Your task to perform on an android device: check data usage Image 0: 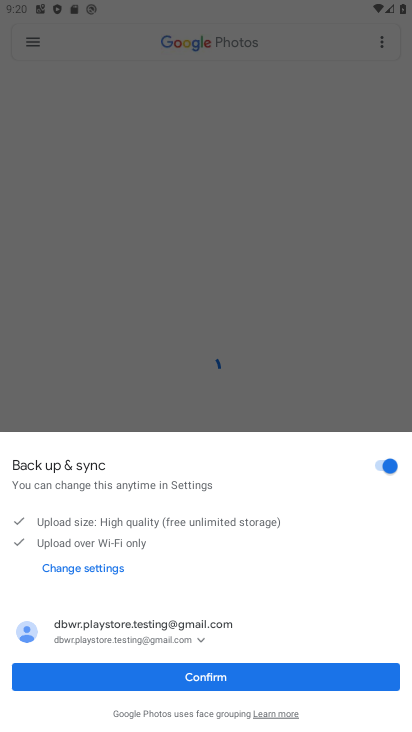
Step 0: click (214, 678)
Your task to perform on an android device: check data usage Image 1: 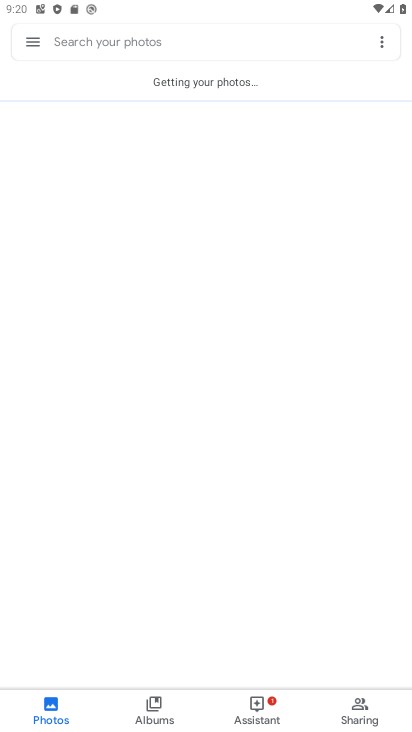
Step 1: press home button
Your task to perform on an android device: check data usage Image 2: 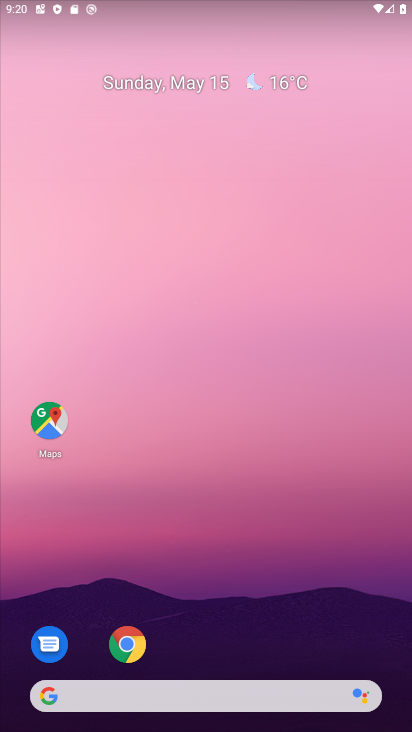
Step 2: drag from (212, 682) to (212, 214)
Your task to perform on an android device: check data usage Image 3: 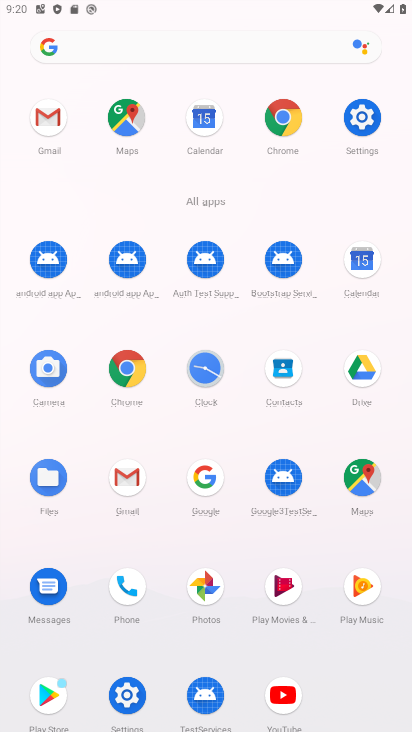
Step 3: click (362, 118)
Your task to perform on an android device: check data usage Image 4: 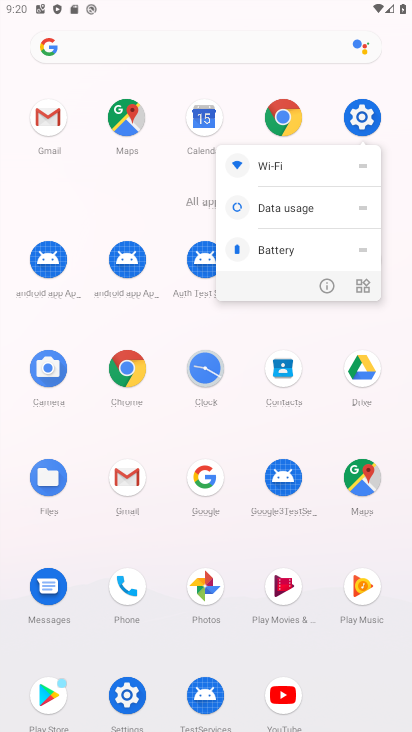
Step 4: click (371, 120)
Your task to perform on an android device: check data usage Image 5: 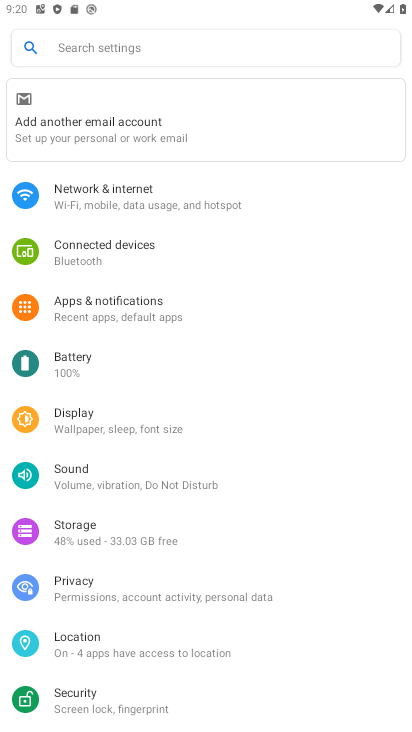
Step 5: click (175, 203)
Your task to perform on an android device: check data usage Image 6: 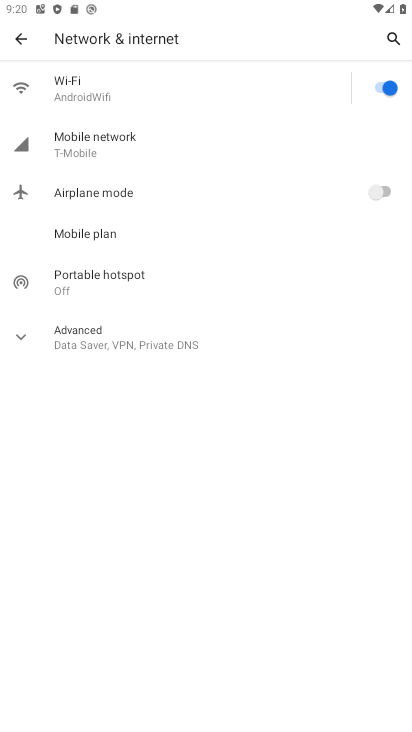
Step 6: click (110, 340)
Your task to perform on an android device: check data usage Image 7: 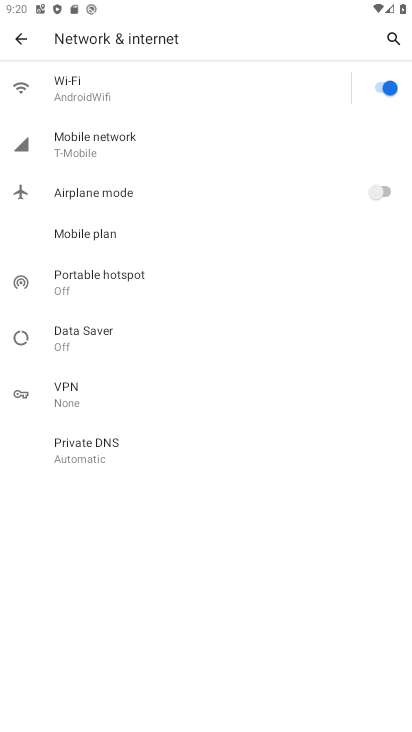
Step 7: click (128, 133)
Your task to perform on an android device: check data usage Image 8: 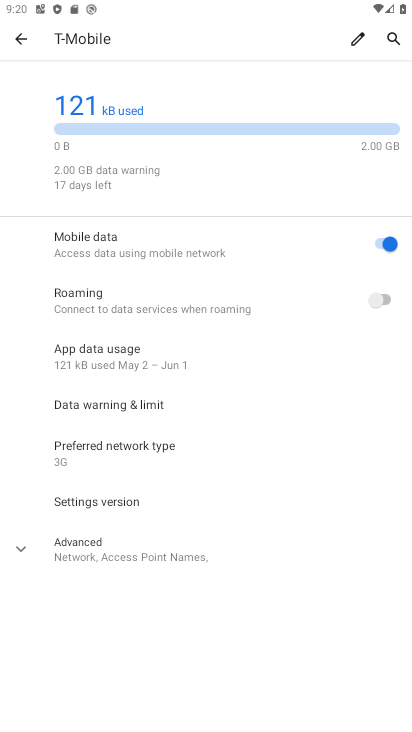
Step 8: task complete